Your task to perform on an android device: Go to CNN.com Image 0: 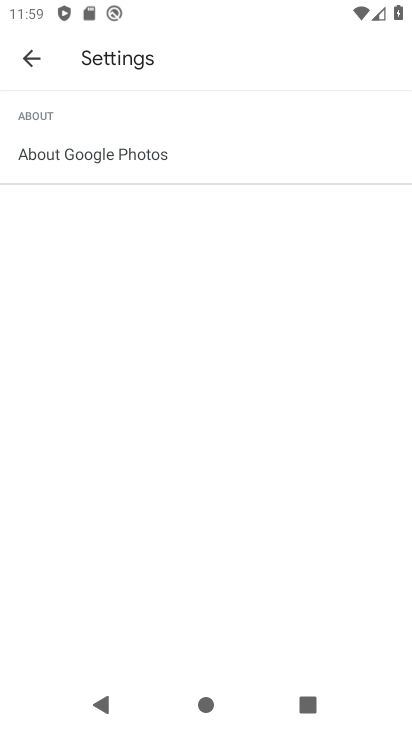
Step 0: press back button
Your task to perform on an android device: Go to CNN.com Image 1: 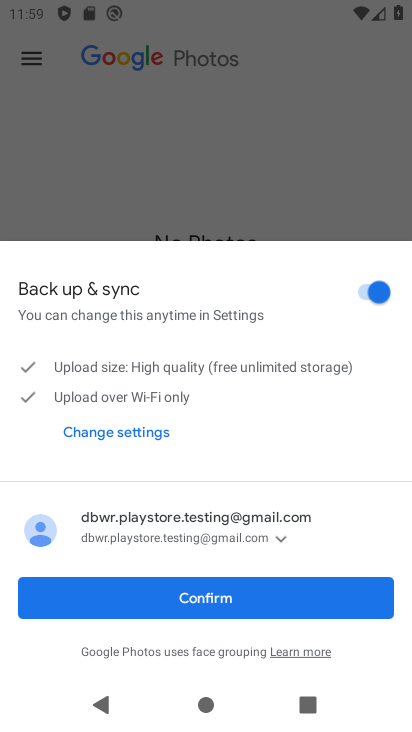
Step 1: press home button
Your task to perform on an android device: Go to CNN.com Image 2: 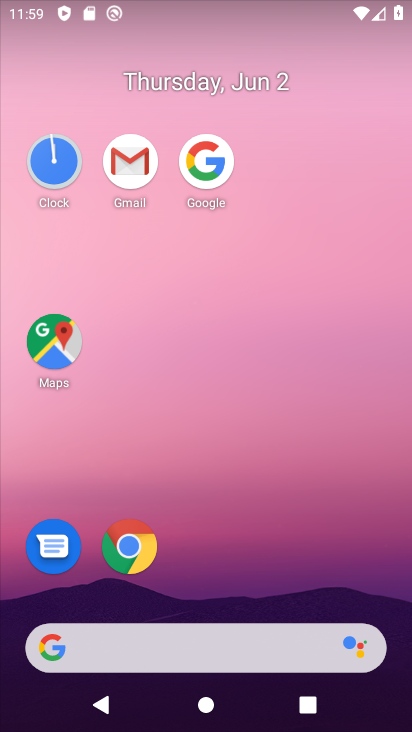
Step 2: click (201, 163)
Your task to perform on an android device: Go to CNN.com Image 3: 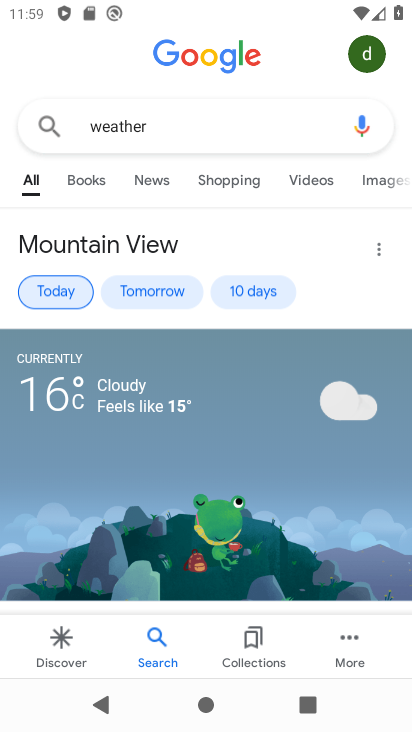
Step 3: click (215, 129)
Your task to perform on an android device: Go to CNN.com Image 4: 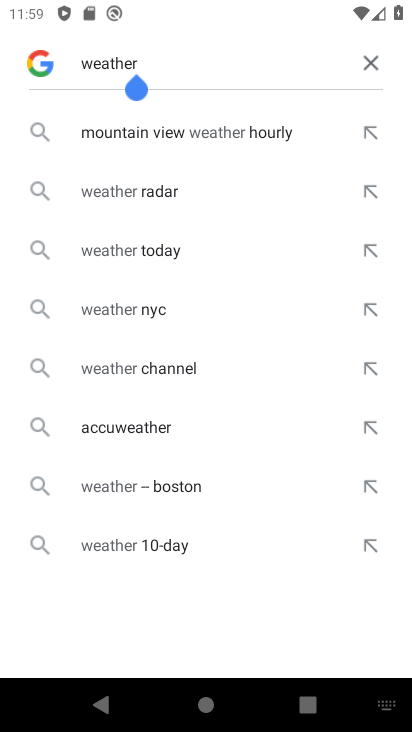
Step 4: click (372, 56)
Your task to perform on an android device: Go to CNN.com Image 5: 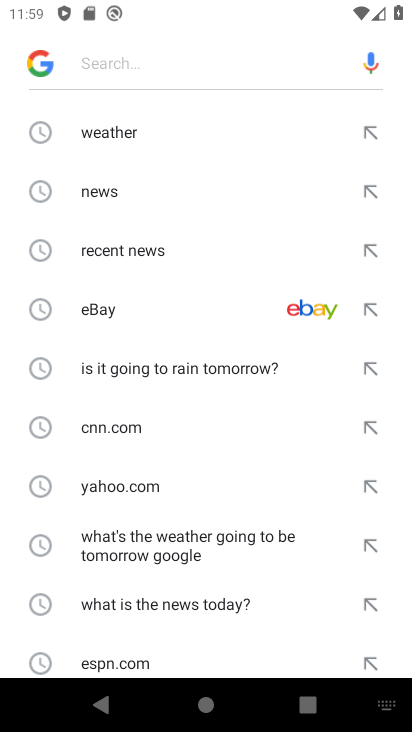
Step 5: click (172, 439)
Your task to perform on an android device: Go to CNN.com Image 6: 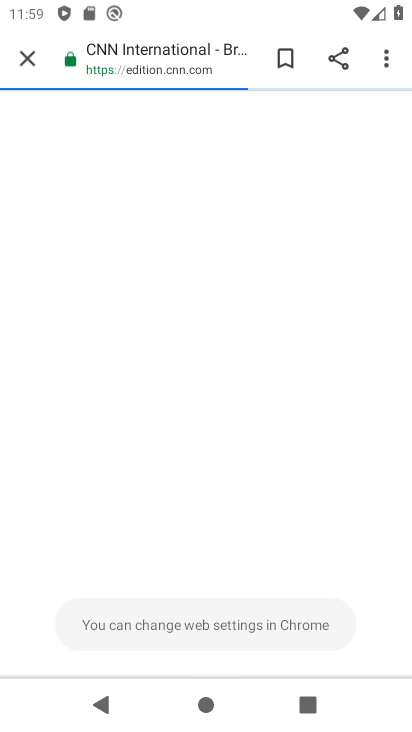
Step 6: task complete